Your task to perform on an android device: Go to settings Image 0: 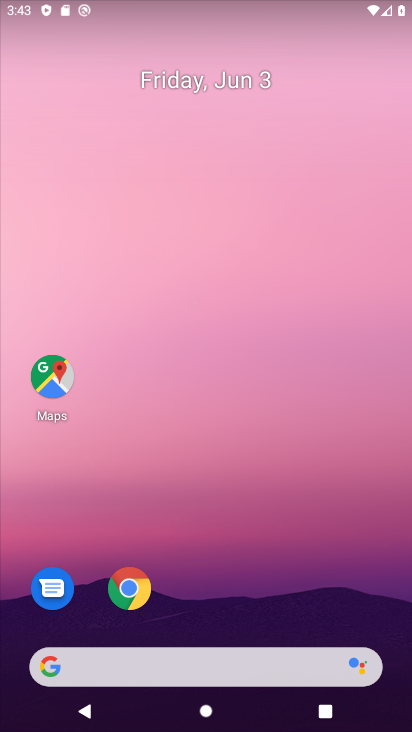
Step 0: drag from (230, 603) to (225, 74)
Your task to perform on an android device: Go to settings Image 1: 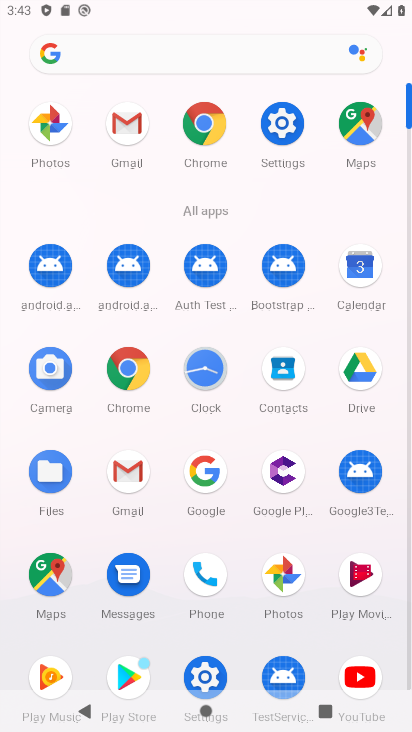
Step 1: click (273, 112)
Your task to perform on an android device: Go to settings Image 2: 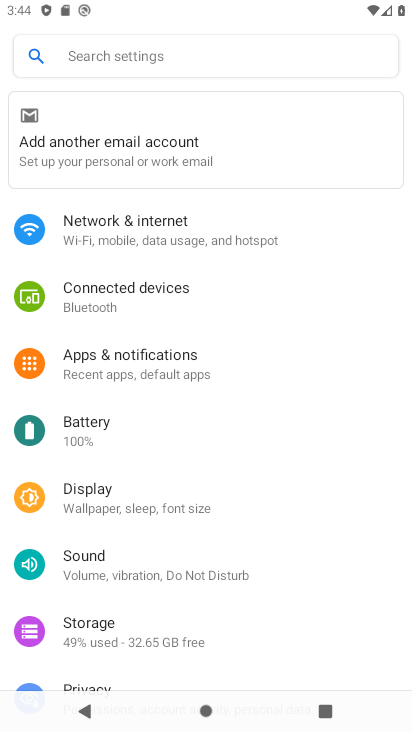
Step 2: task complete